Your task to perform on an android device: turn pop-ups on in chrome Image 0: 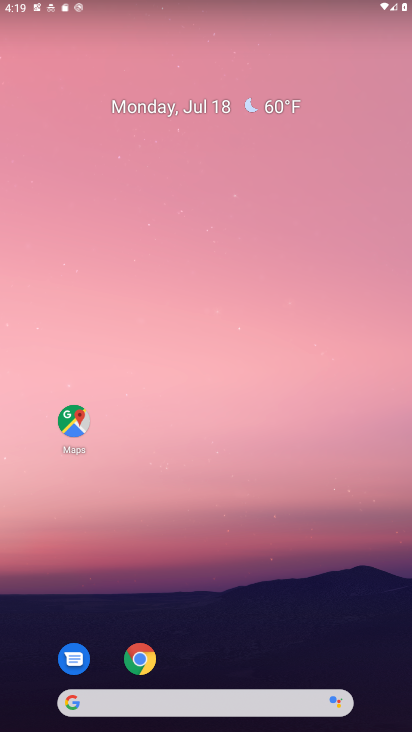
Step 0: drag from (265, 584) to (315, 30)
Your task to perform on an android device: turn pop-ups on in chrome Image 1: 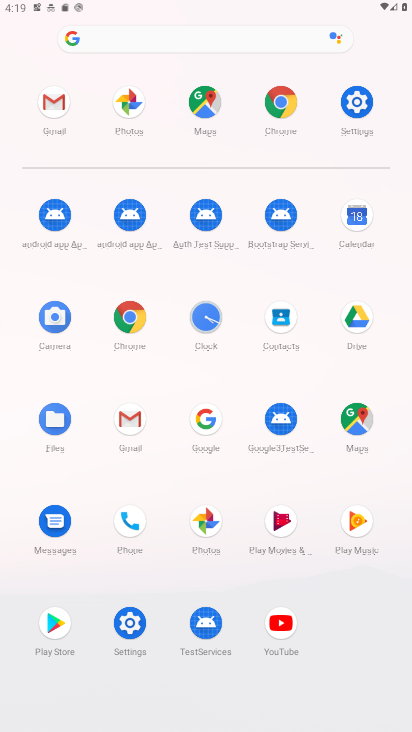
Step 1: click (135, 314)
Your task to perform on an android device: turn pop-ups on in chrome Image 2: 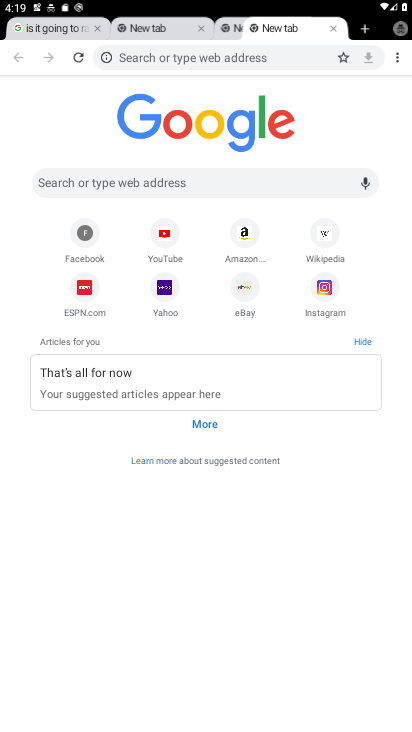
Step 2: drag from (391, 50) to (296, 258)
Your task to perform on an android device: turn pop-ups on in chrome Image 3: 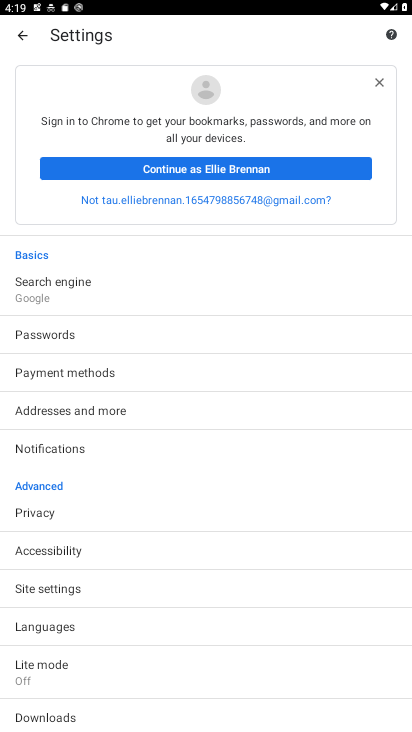
Step 3: click (86, 597)
Your task to perform on an android device: turn pop-ups on in chrome Image 4: 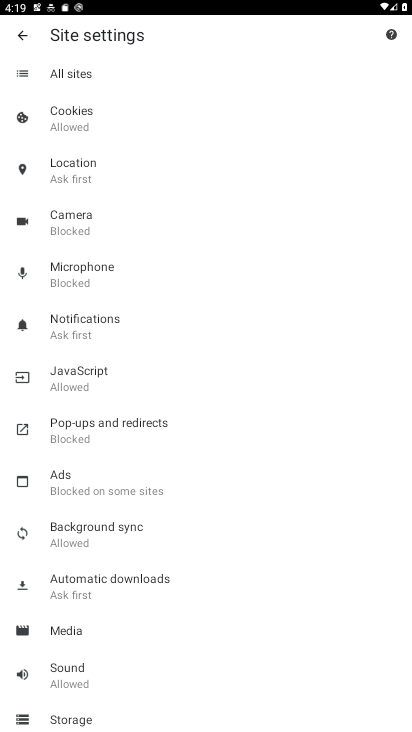
Step 4: click (141, 435)
Your task to perform on an android device: turn pop-ups on in chrome Image 5: 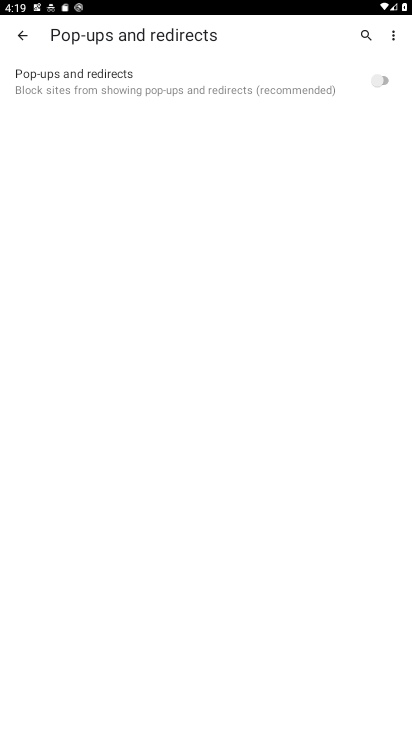
Step 5: click (378, 80)
Your task to perform on an android device: turn pop-ups on in chrome Image 6: 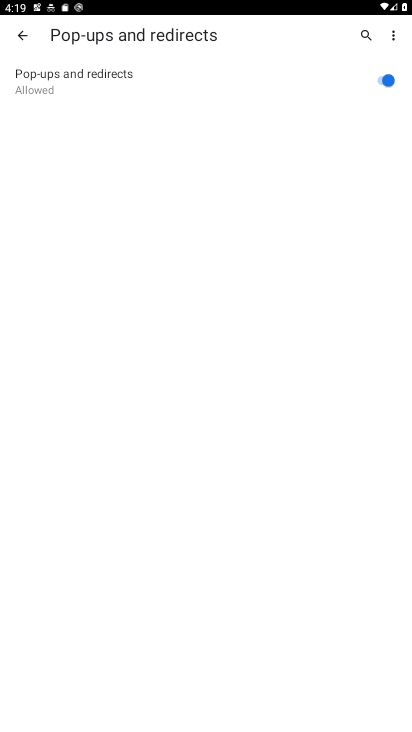
Step 6: task complete